Your task to perform on an android device: turn on the 12-hour format for clock Image 0: 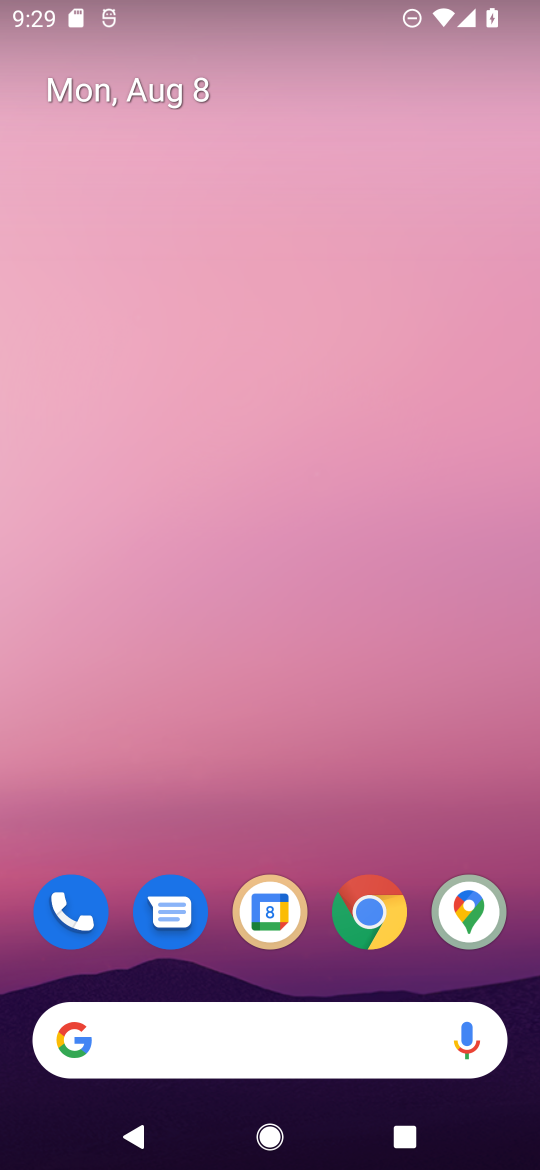
Step 0: drag from (432, 956) to (174, 33)
Your task to perform on an android device: turn on the 12-hour format for clock Image 1: 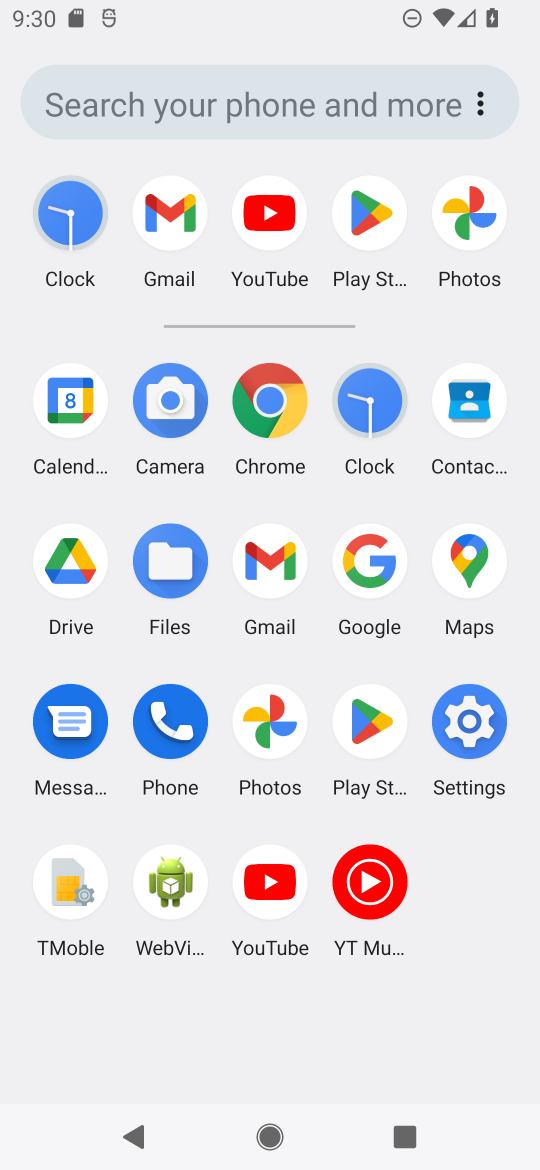
Step 1: click (361, 324)
Your task to perform on an android device: turn on the 12-hour format for clock Image 2: 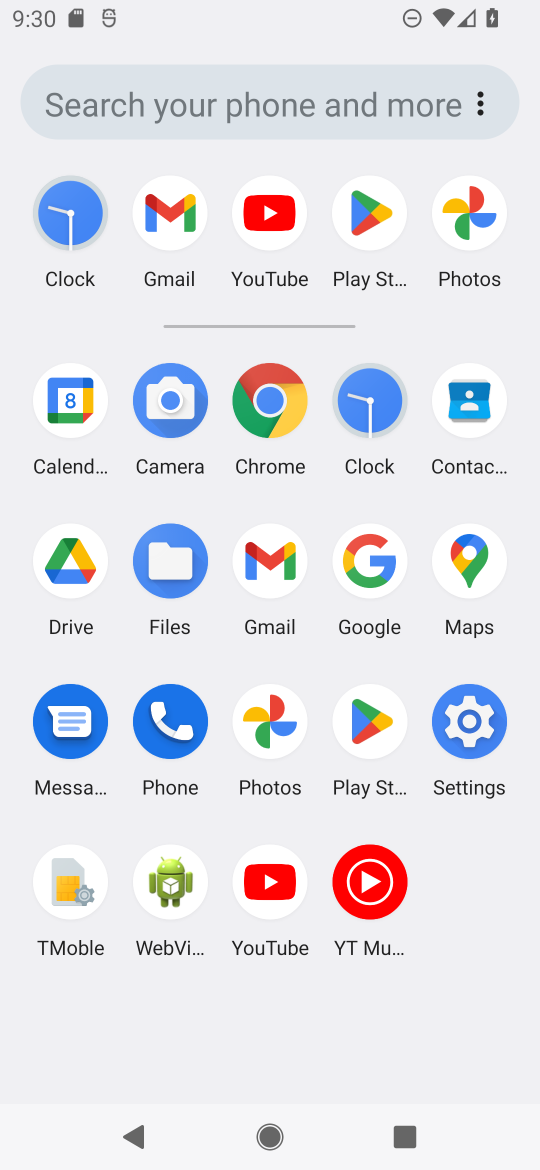
Step 2: click (378, 407)
Your task to perform on an android device: turn on the 12-hour format for clock Image 3: 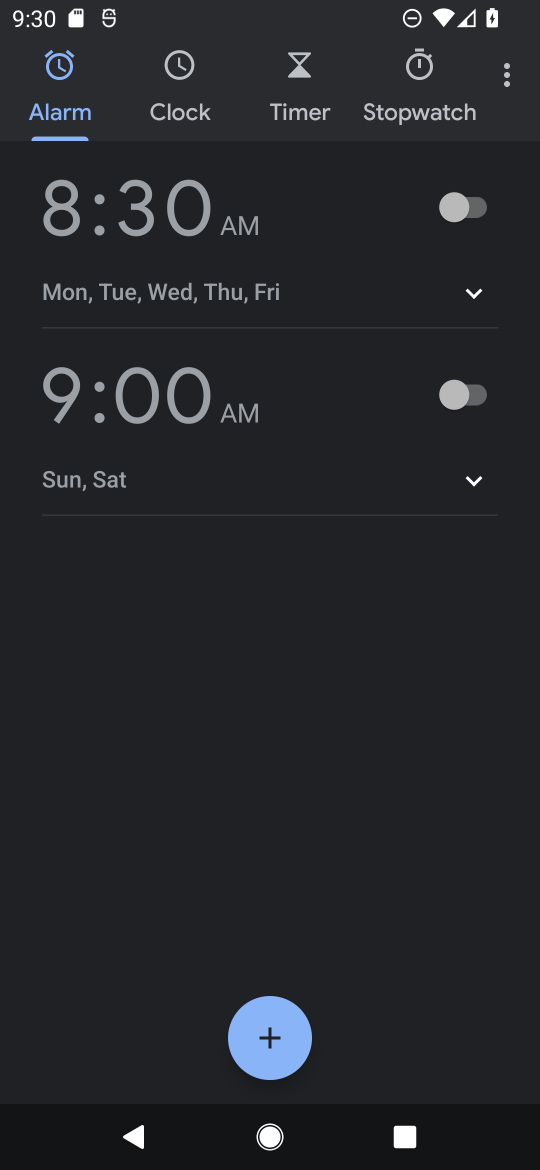
Step 3: click (510, 77)
Your task to perform on an android device: turn on the 12-hour format for clock Image 4: 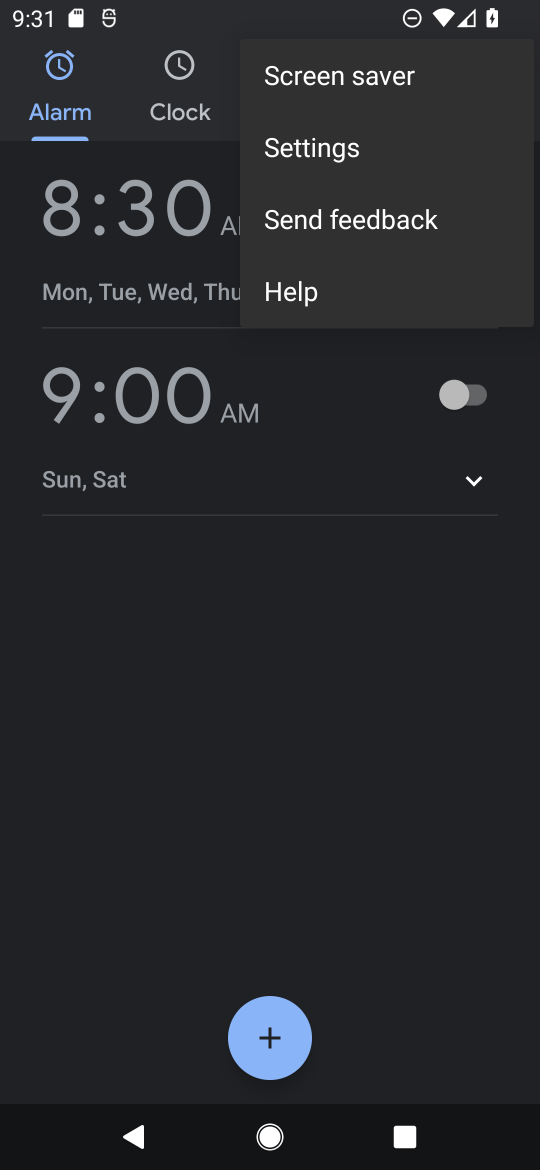
Step 4: click (273, 157)
Your task to perform on an android device: turn on the 12-hour format for clock Image 5: 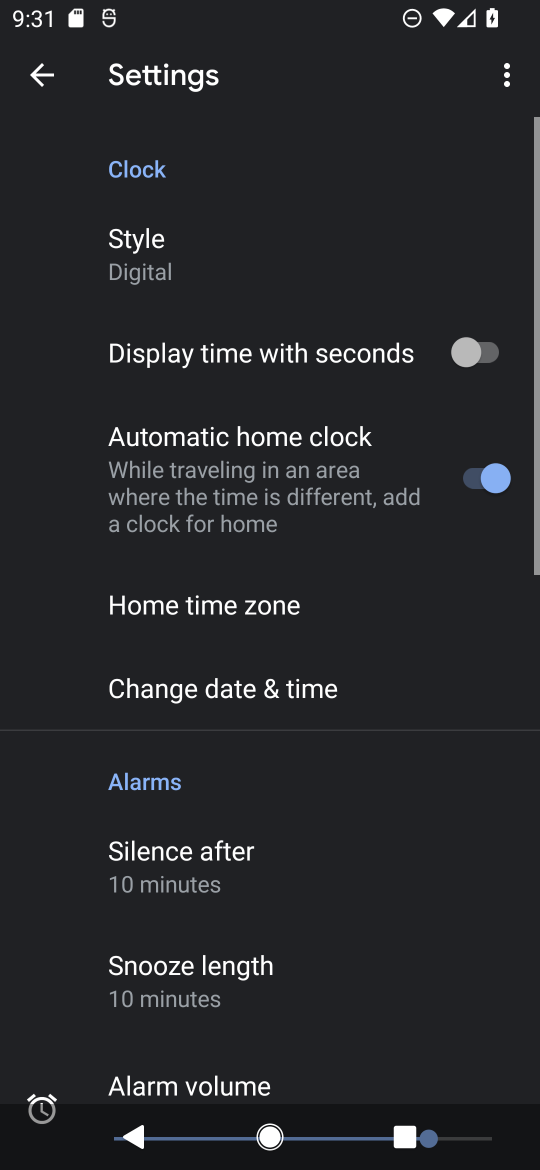
Step 5: click (243, 697)
Your task to perform on an android device: turn on the 12-hour format for clock Image 6: 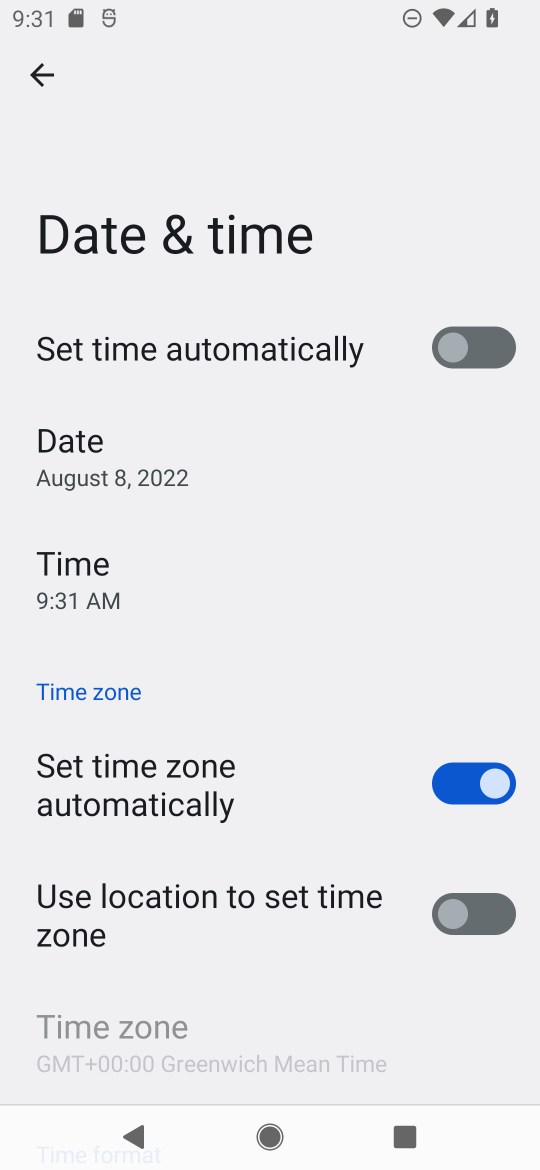
Step 6: task complete